Your task to perform on an android device: all mails in gmail Image 0: 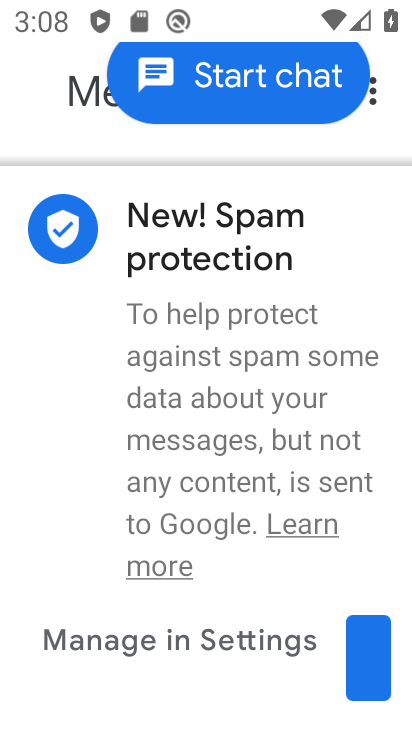
Step 0: press back button
Your task to perform on an android device: all mails in gmail Image 1: 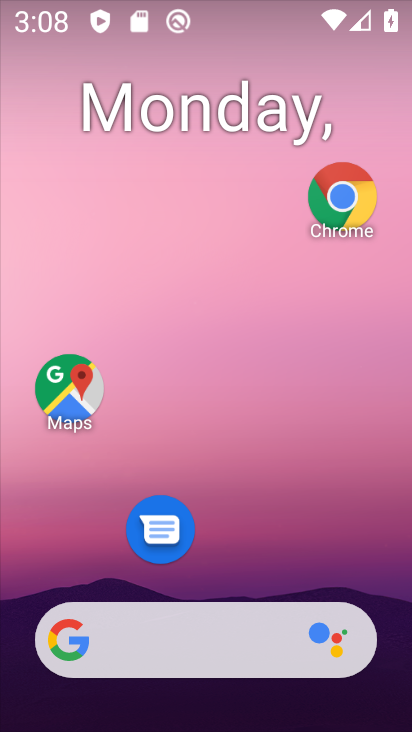
Step 1: drag from (190, 575) to (217, 57)
Your task to perform on an android device: all mails in gmail Image 2: 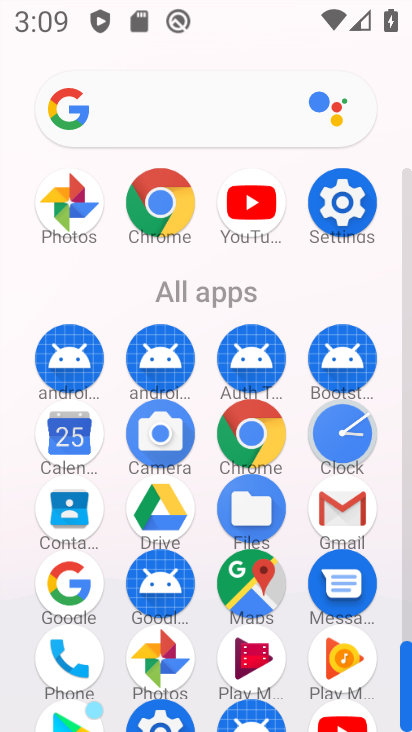
Step 2: click (345, 498)
Your task to perform on an android device: all mails in gmail Image 3: 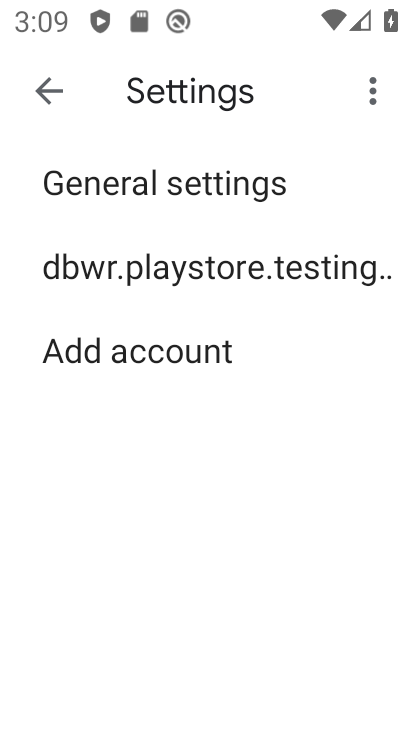
Step 3: press back button
Your task to perform on an android device: all mails in gmail Image 4: 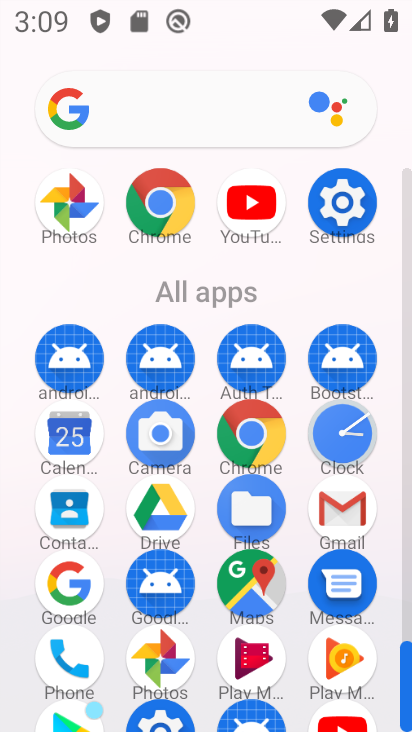
Step 4: click (349, 515)
Your task to perform on an android device: all mails in gmail Image 5: 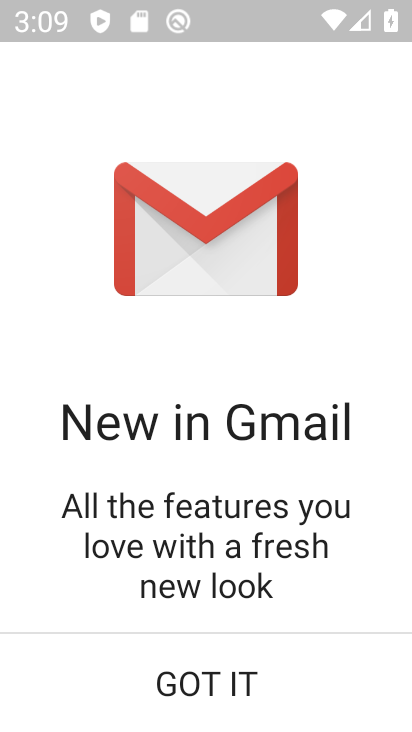
Step 5: click (253, 684)
Your task to perform on an android device: all mails in gmail Image 6: 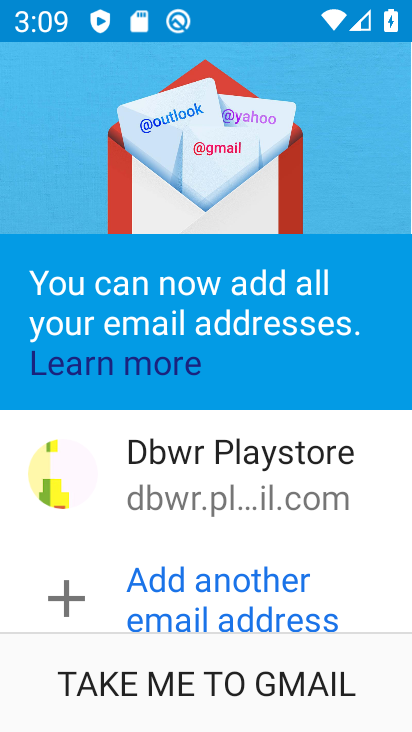
Step 6: click (279, 692)
Your task to perform on an android device: all mails in gmail Image 7: 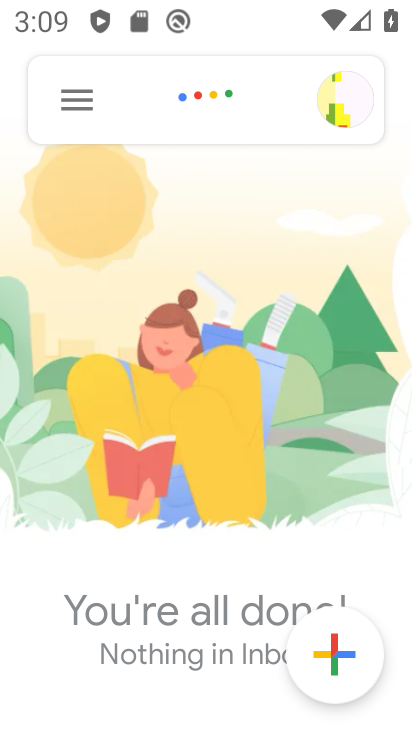
Step 7: click (55, 114)
Your task to perform on an android device: all mails in gmail Image 8: 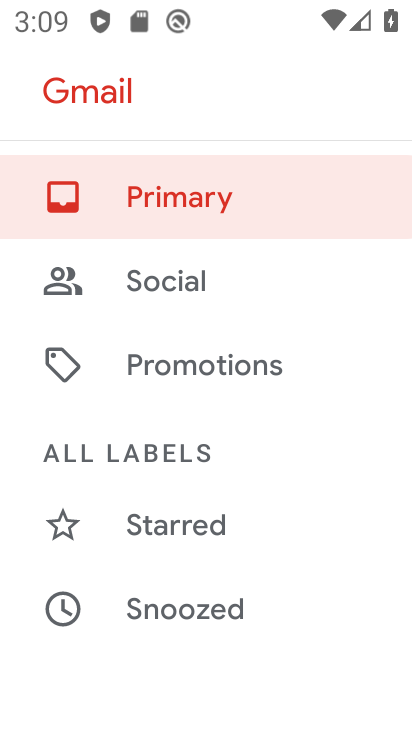
Step 8: drag from (211, 571) to (284, 157)
Your task to perform on an android device: all mails in gmail Image 9: 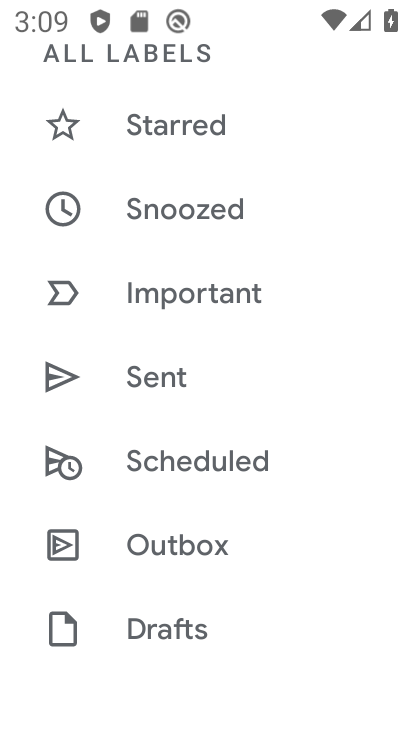
Step 9: drag from (217, 548) to (273, 192)
Your task to perform on an android device: all mails in gmail Image 10: 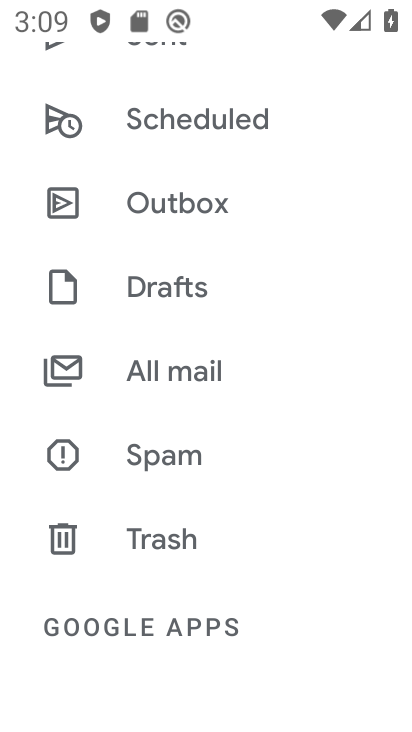
Step 10: click (226, 375)
Your task to perform on an android device: all mails in gmail Image 11: 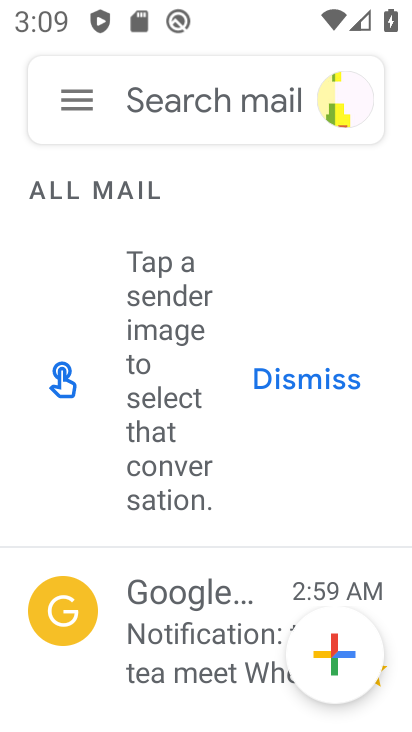
Step 11: task complete